Your task to perform on an android device: Go to accessibility settings Image 0: 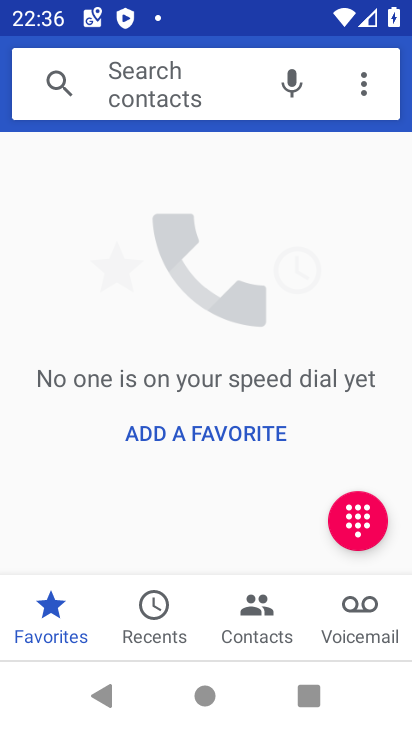
Step 0: press home button
Your task to perform on an android device: Go to accessibility settings Image 1: 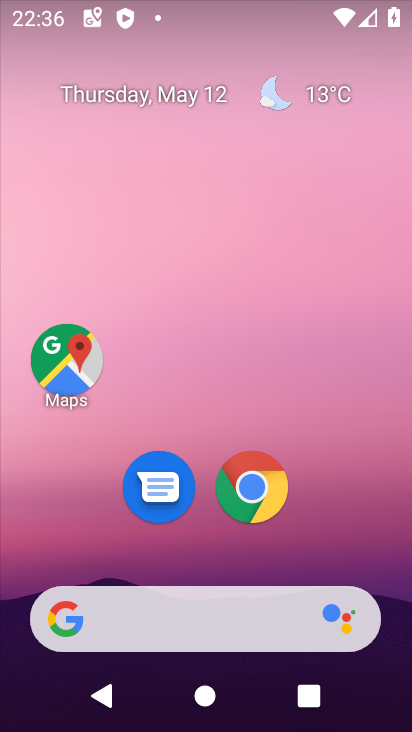
Step 1: drag from (206, 543) to (390, 110)
Your task to perform on an android device: Go to accessibility settings Image 2: 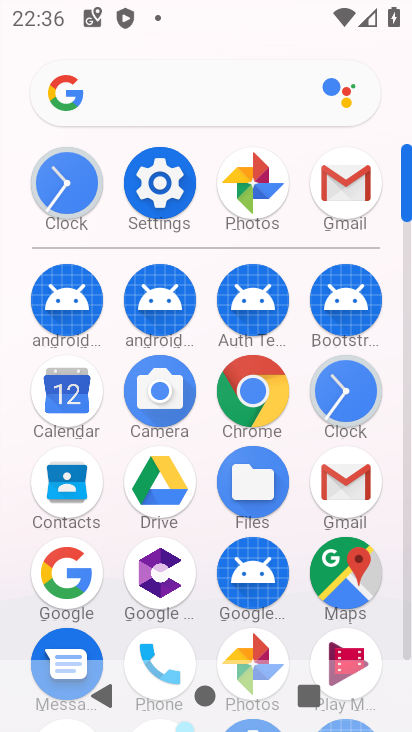
Step 2: click (160, 202)
Your task to perform on an android device: Go to accessibility settings Image 3: 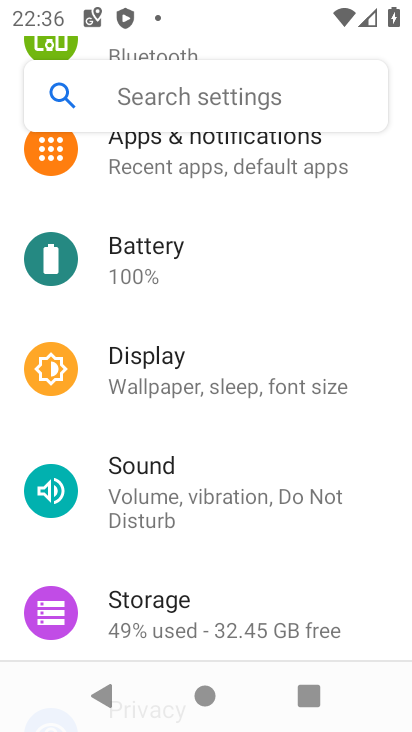
Step 3: drag from (101, 607) to (166, 132)
Your task to perform on an android device: Go to accessibility settings Image 4: 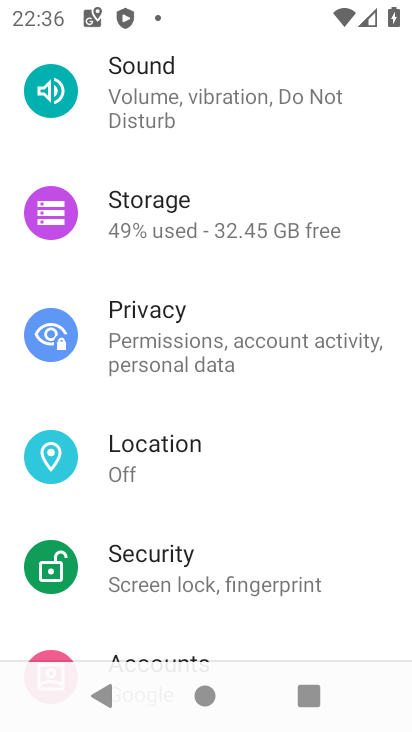
Step 4: drag from (162, 573) to (212, 83)
Your task to perform on an android device: Go to accessibility settings Image 5: 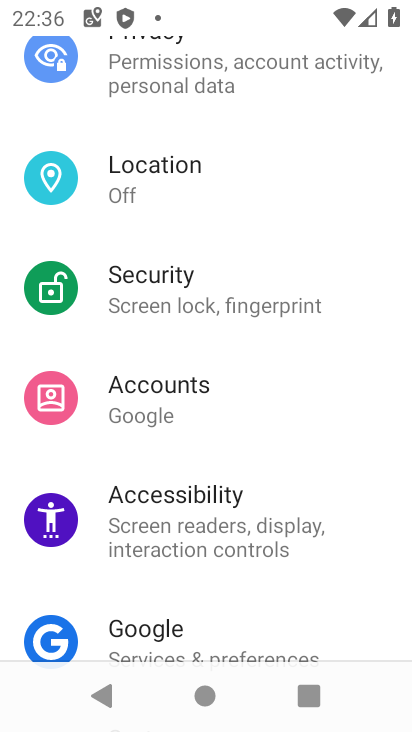
Step 5: click (232, 538)
Your task to perform on an android device: Go to accessibility settings Image 6: 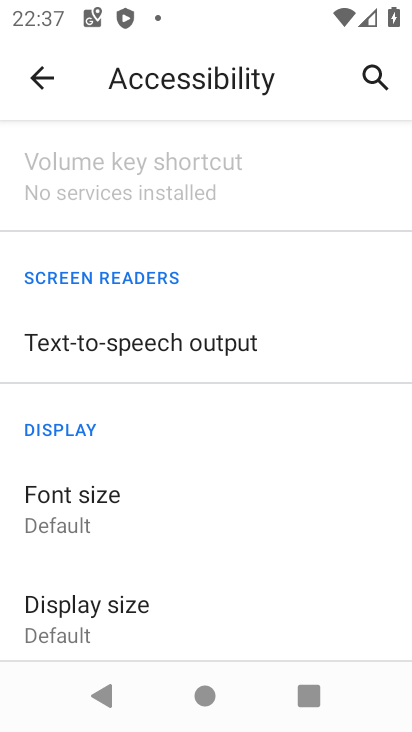
Step 6: task complete